Your task to perform on an android device: Open Reddit.com Image 0: 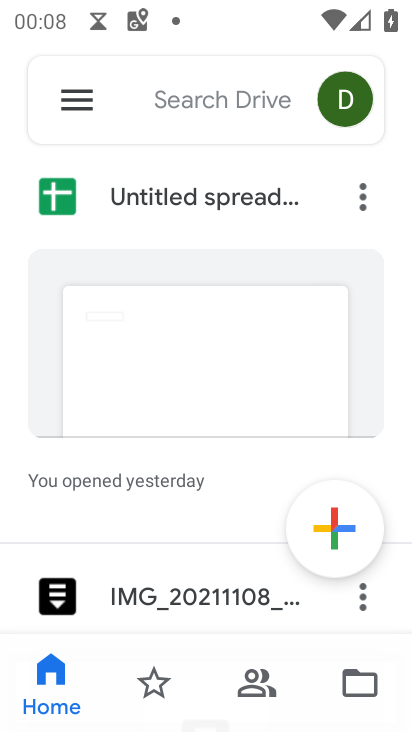
Step 0: press home button
Your task to perform on an android device: Open Reddit.com Image 1: 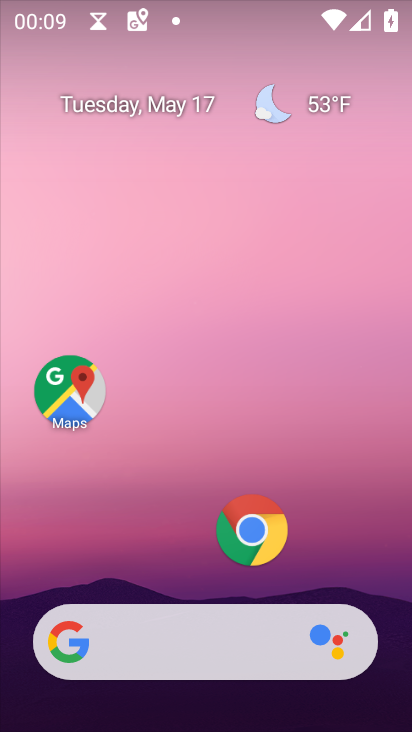
Step 1: drag from (168, 579) to (199, 208)
Your task to perform on an android device: Open Reddit.com Image 2: 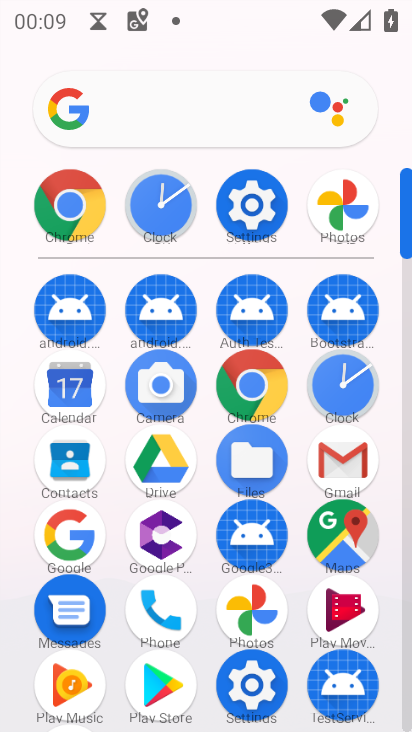
Step 2: click (83, 202)
Your task to perform on an android device: Open Reddit.com Image 3: 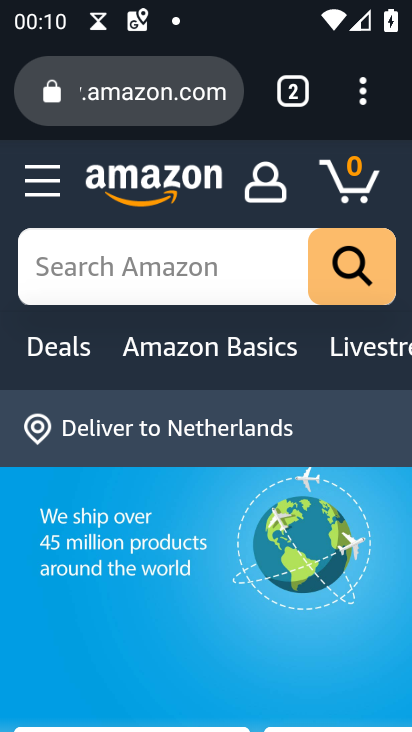
Step 3: click (298, 81)
Your task to perform on an android device: Open Reddit.com Image 4: 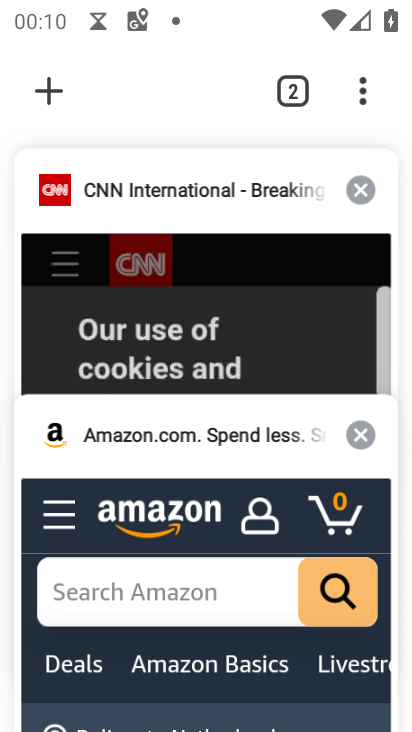
Step 4: click (55, 90)
Your task to perform on an android device: Open Reddit.com Image 5: 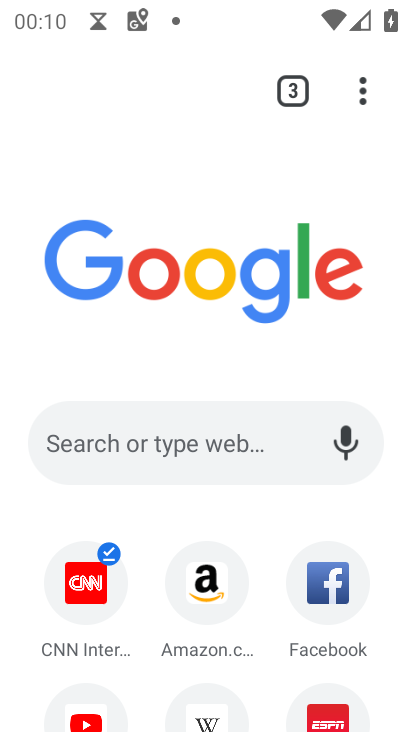
Step 5: click (240, 462)
Your task to perform on an android device: Open Reddit.com Image 6: 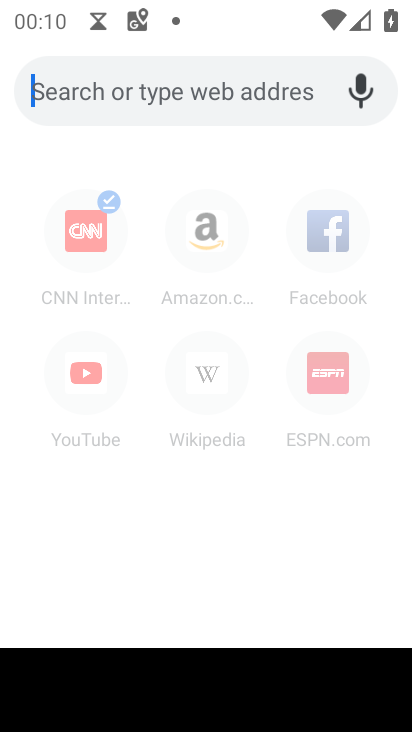
Step 6: type "Reddit.com"
Your task to perform on an android device: Open Reddit.com Image 7: 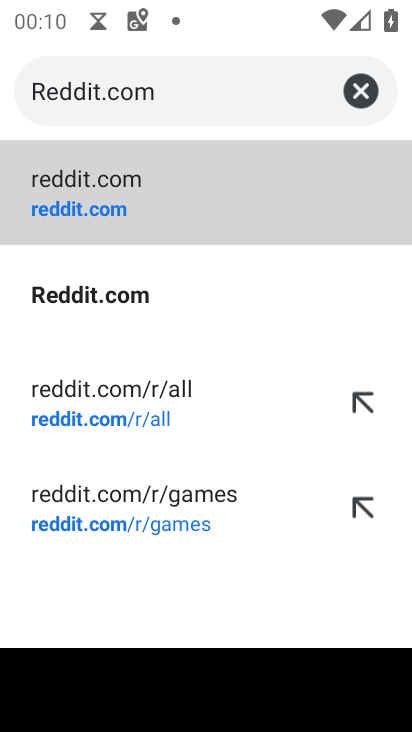
Step 7: click (120, 221)
Your task to perform on an android device: Open Reddit.com Image 8: 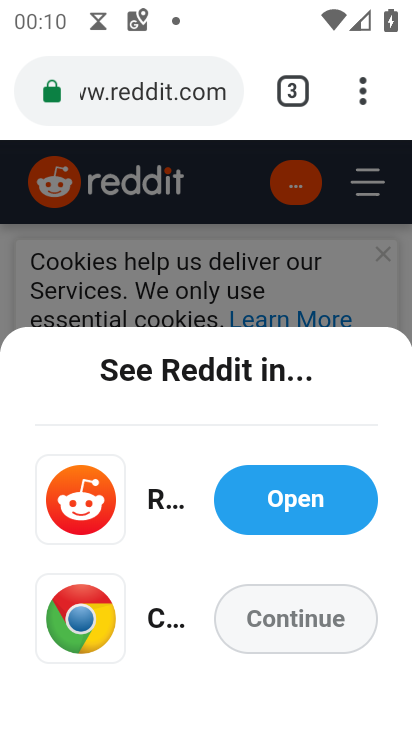
Step 8: click (320, 642)
Your task to perform on an android device: Open Reddit.com Image 9: 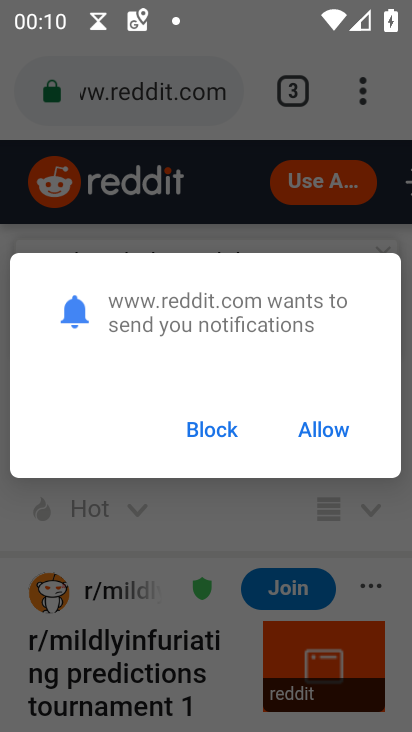
Step 9: click (320, 642)
Your task to perform on an android device: Open Reddit.com Image 10: 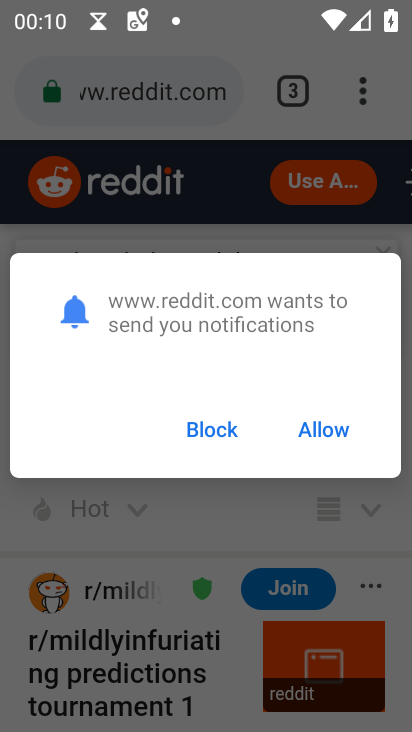
Step 10: click (229, 431)
Your task to perform on an android device: Open Reddit.com Image 11: 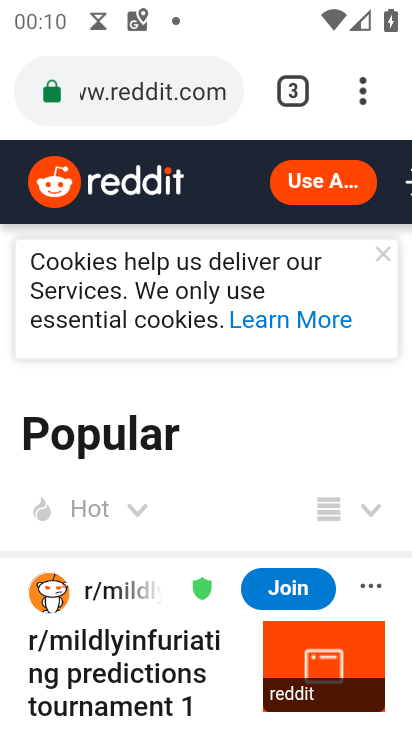
Step 11: task complete